Your task to perform on an android device: What's on Reddit Image 0: 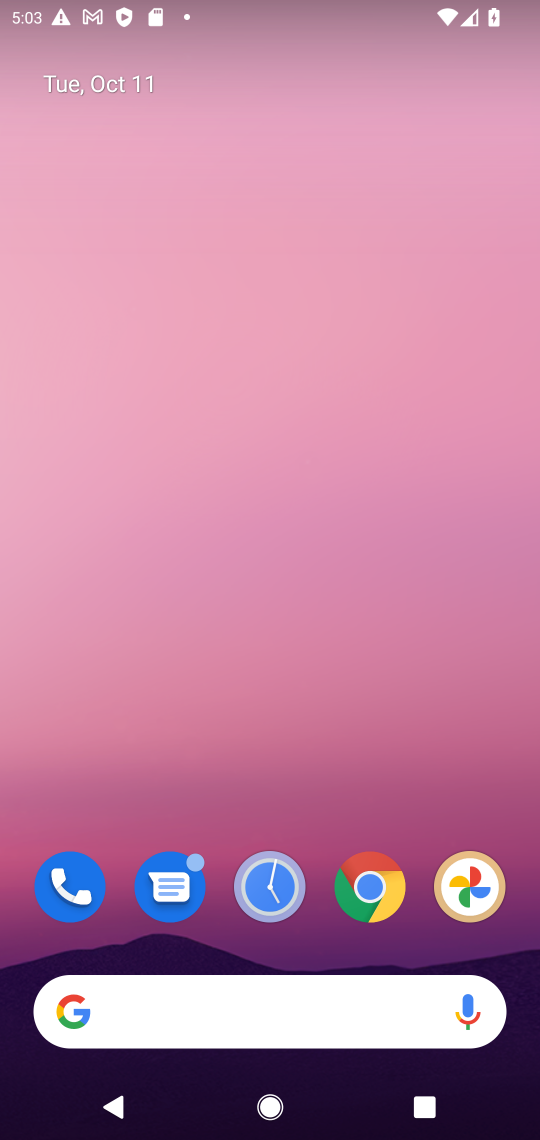
Step 0: drag from (304, 935) to (210, 460)
Your task to perform on an android device: What's on Reddit Image 1: 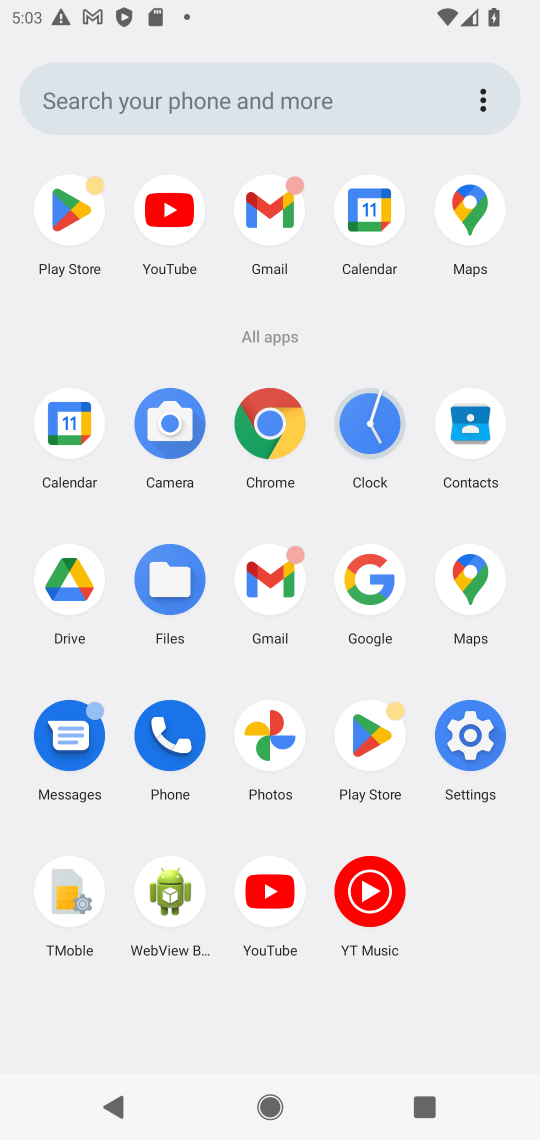
Step 1: click (360, 741)
Your task to perform on an android device: What's on Reddit Image 2: 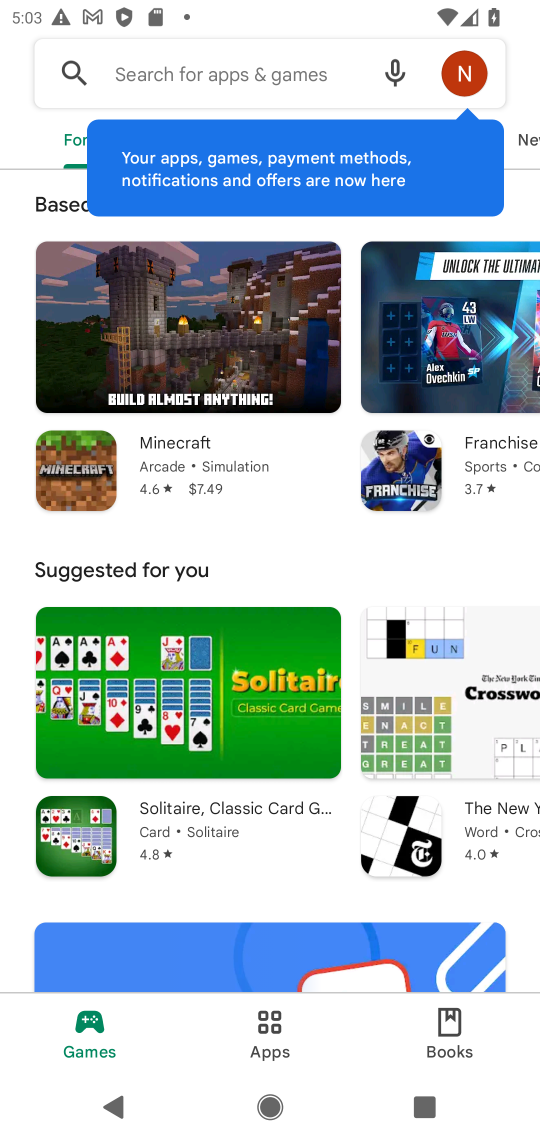
Step 2: click (227, 72)
Your task to perform on an android device: What's on Reddit Image 3: 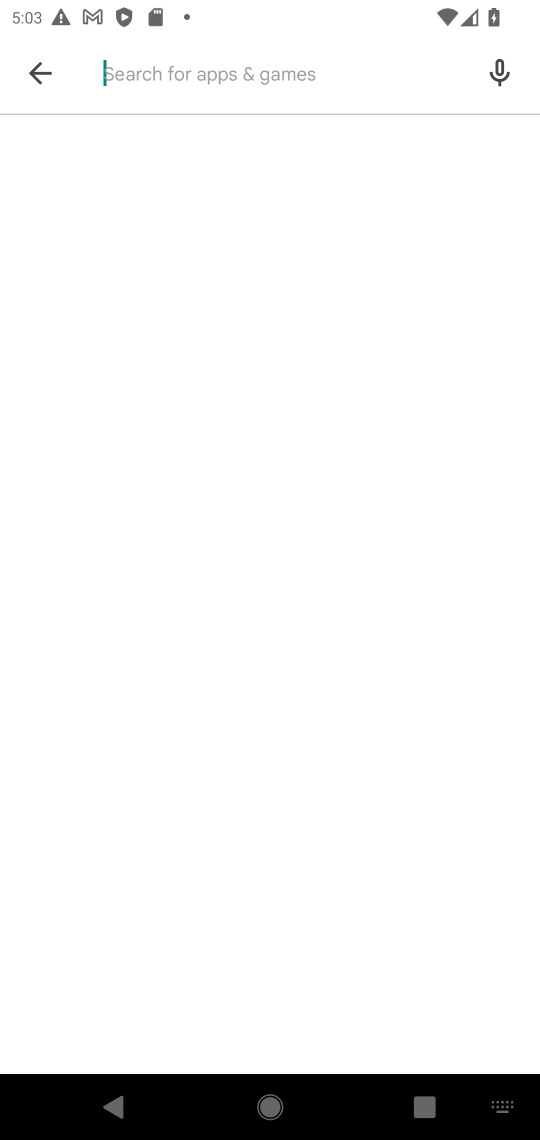
Step 3: type "Reddit"
Your task to perform on an android device: What's on Reddit Image 4: 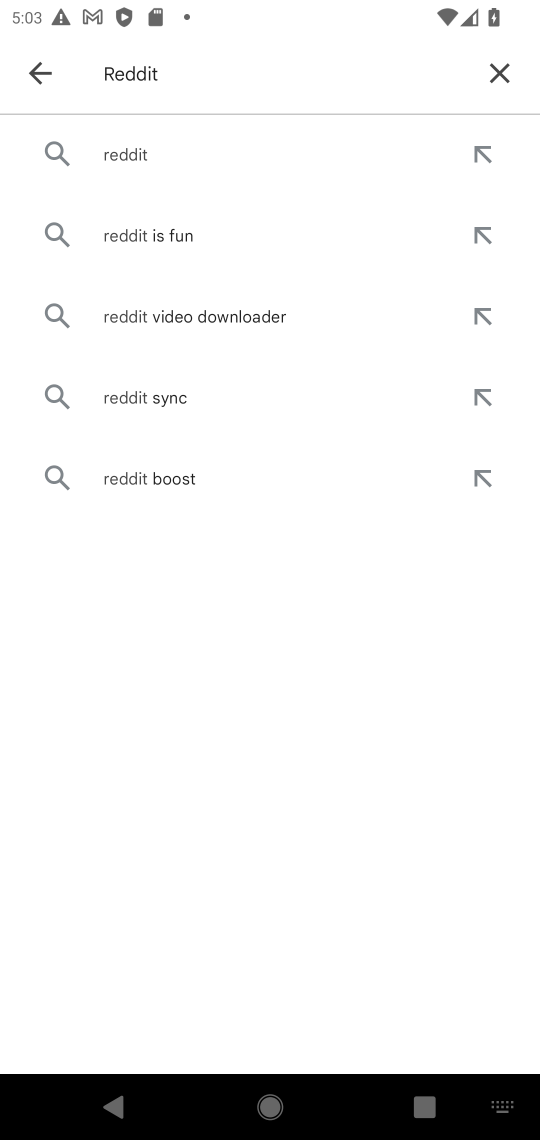
Step 4: click (104, 151)
Your task to perform on an android device: What's on Reddit Image 5: 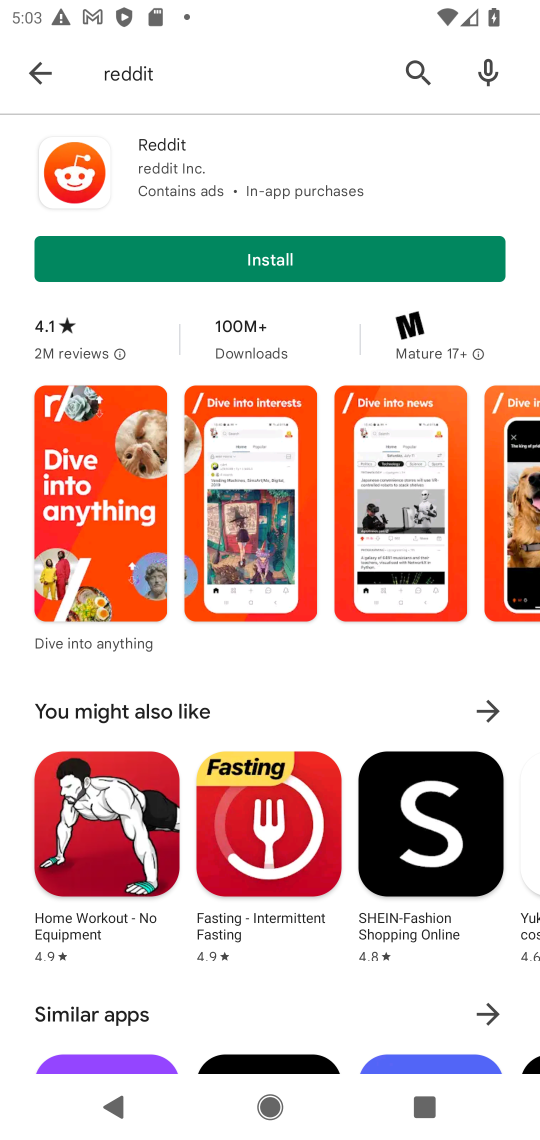
Step 5: click (261, 264)
Your task to perform on an android device: What's on Reddit Image 6: 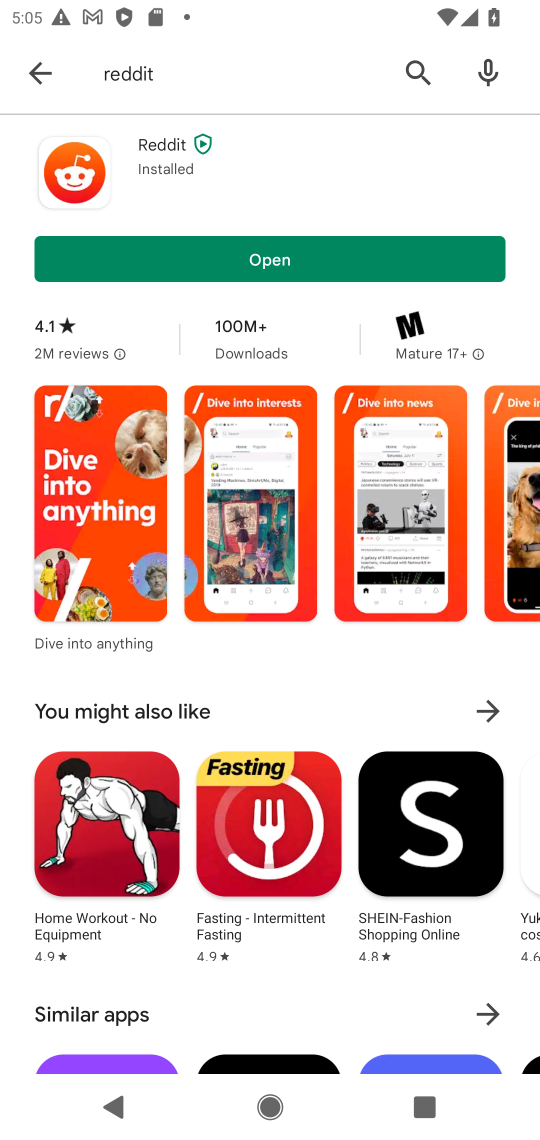
Step 6: click (280, 272)
Your task to perform on an android device: What's on Reddit Image 7: 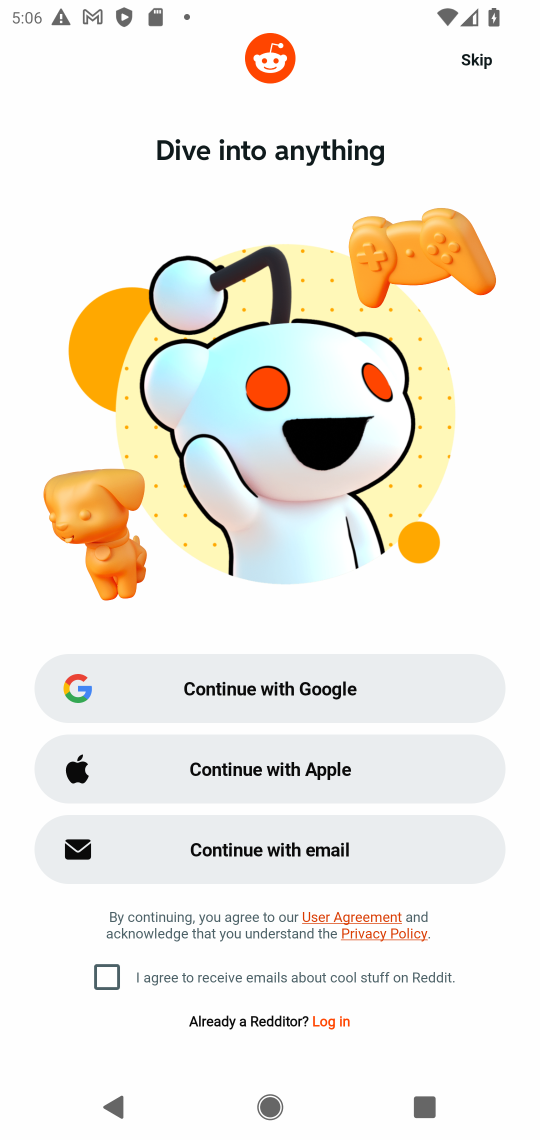
Step 7: task complete